Your task to perform on an android device: read, delete, or share a saved page in the chrome app Image 0: 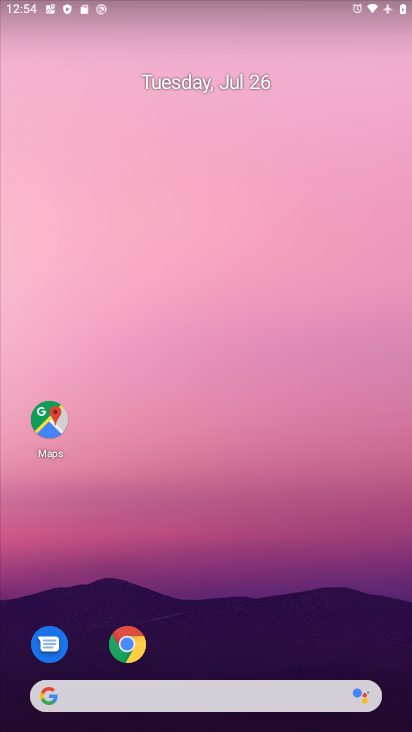
Step 0: drag from (193, 440) to (216, 102)
Your task to perform on an android device: read, delete, or share a saved page in the chrome app Image 1: 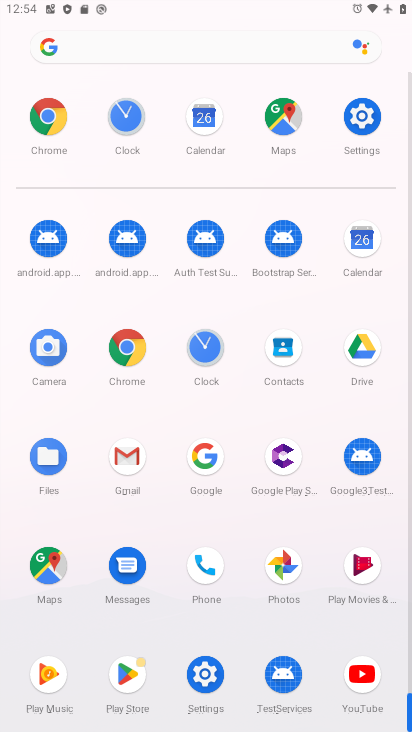
Step 1: click (35, 126)
Your task to perform on an android device: read, delete, or share a saved page in the chrome app Image 2: 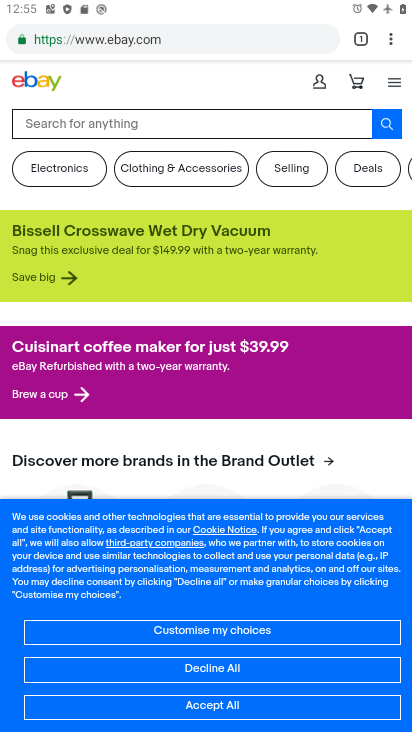
Step 2: click (390, 45)
Your task to perform on an android device: read, delete, or share a saved page in the chrome app Image 3: 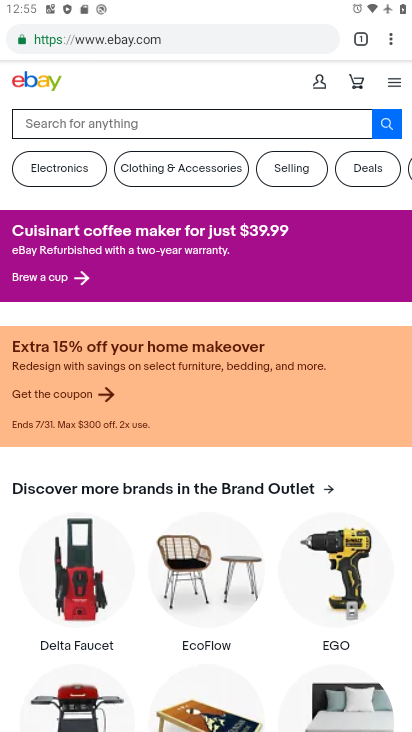
Step 3: click (395, 39)
Your task to perform on an android device: read, delete, or share a saved page in the chrome app Image 4: 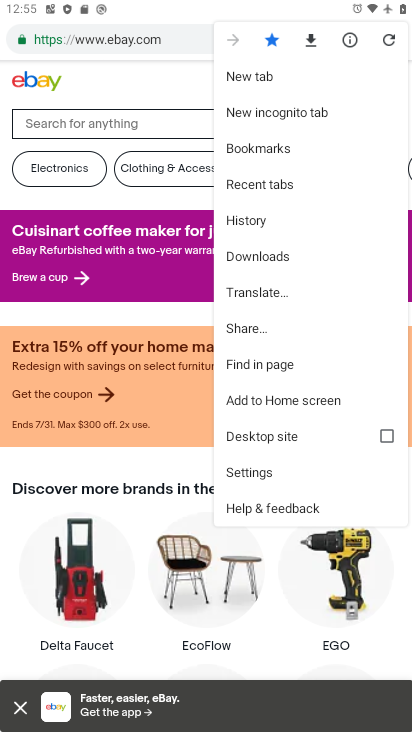
Step 4: click (262, 251)
Your task to perform on an android device: read, delete, or share a saved page in the chrome app Image 5: 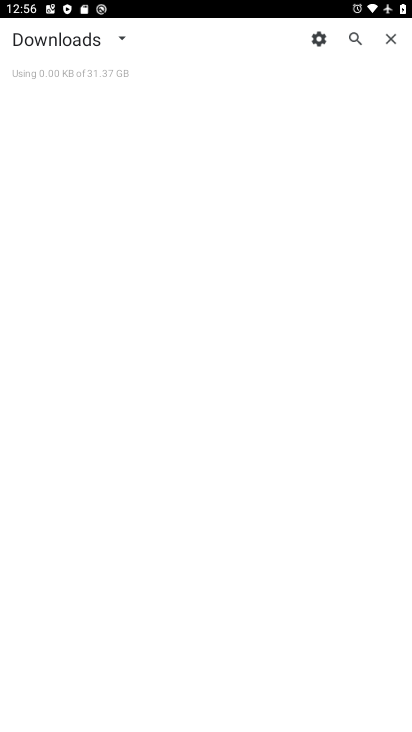
Step 5: click (104, 40)
Your task to perform on an android device: read, delete, or share a saved page in the chrome app Image 6: 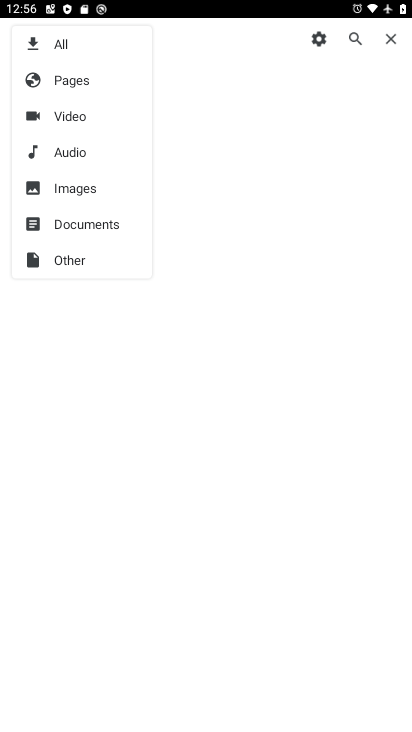
Step 6: click (73, 82)
Your task to perform on an android device: read, delete, or share a saved page in the chrome app Image 7: 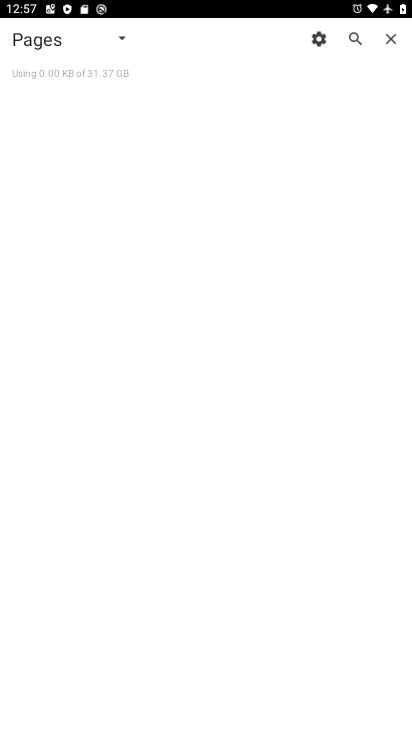
Step 7: task complete